Your task to perform on an android device: set the stopwatch Image 0: 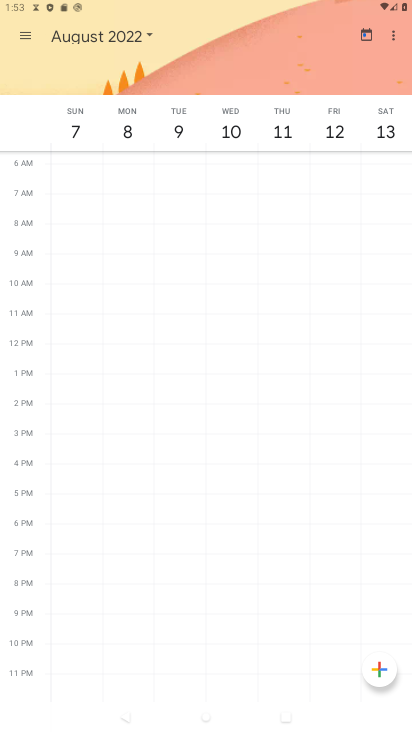
Step 0: press home button
Your task to perform on an android device: set the stopwatch Image 1: 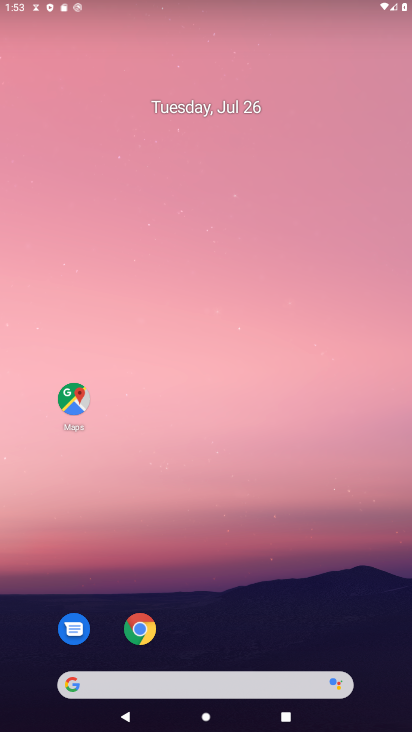
Step 1: drag from (268, 613) to (196, 6)
Your task to perform on an android device: set the stopwatch Image 2: 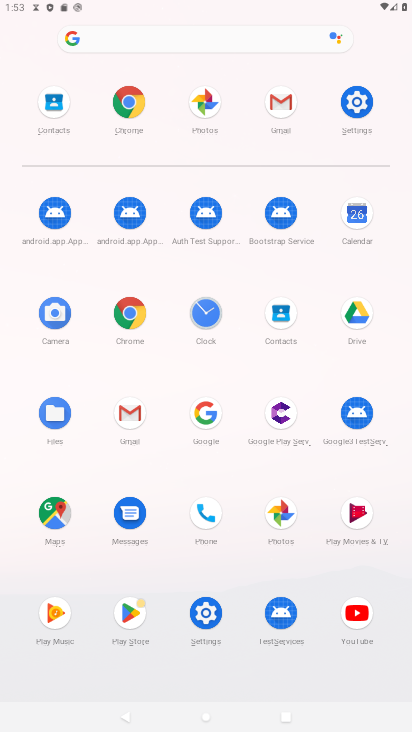
Step 2: click (211, 316)
Your task to perform on an android device: set the stopwatch Image 3: 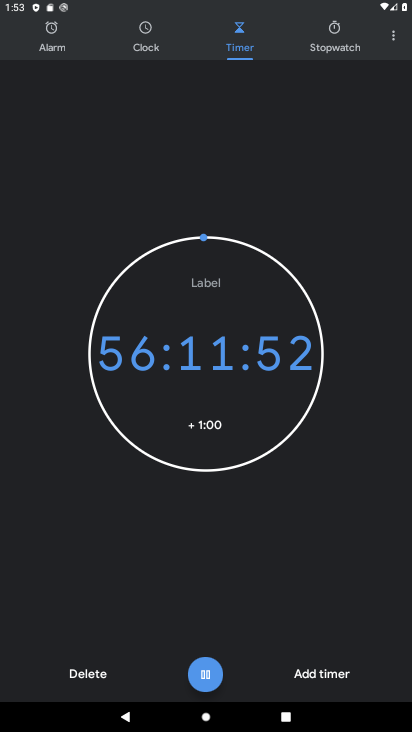
Step 3: click (342, 38)
Your task to perform on an android device: set the stopwatch Image 4: 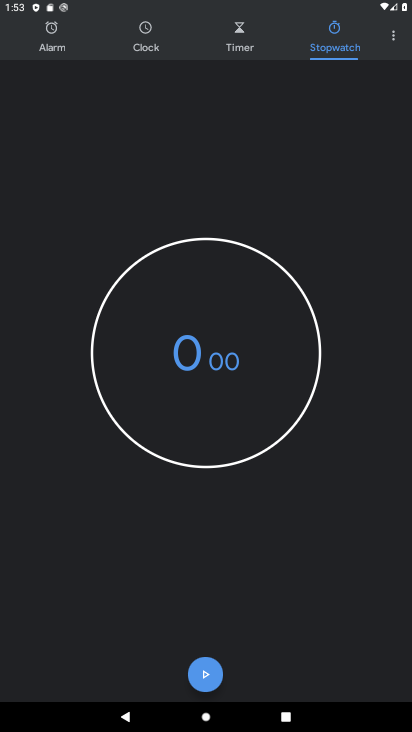
Step 4: click (202, 687)
Your task to perform on an android device: set the stopwatch Image 5: 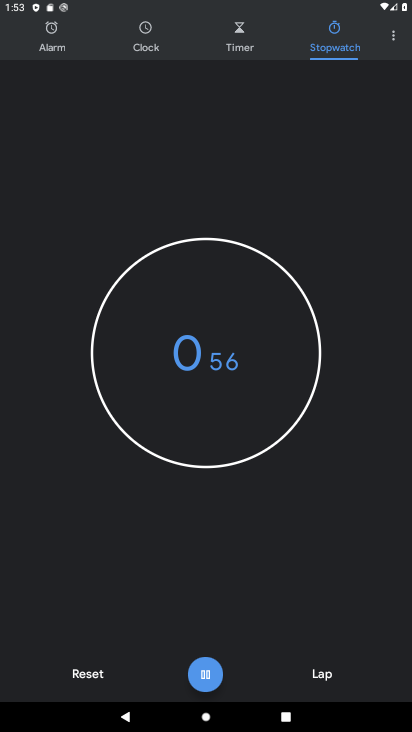
Step 5: task complete